Your task to perform on an android device: Check out the best rated books on Goodreads. Image 0: 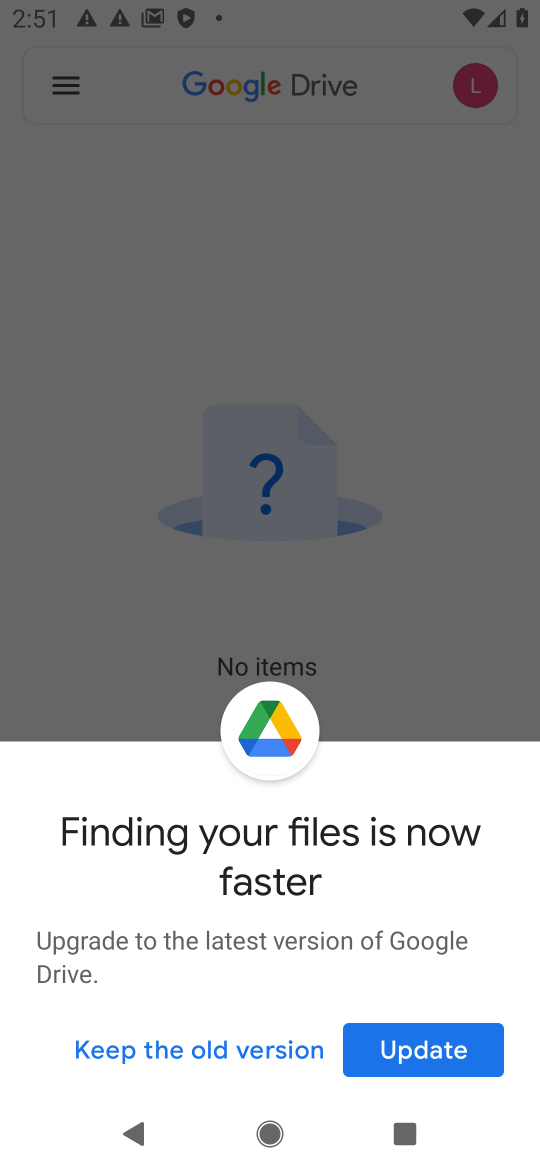
Step 0: press home button
Your task to perform on an android device: Check out the best rated books on Goodreads. Image 1: 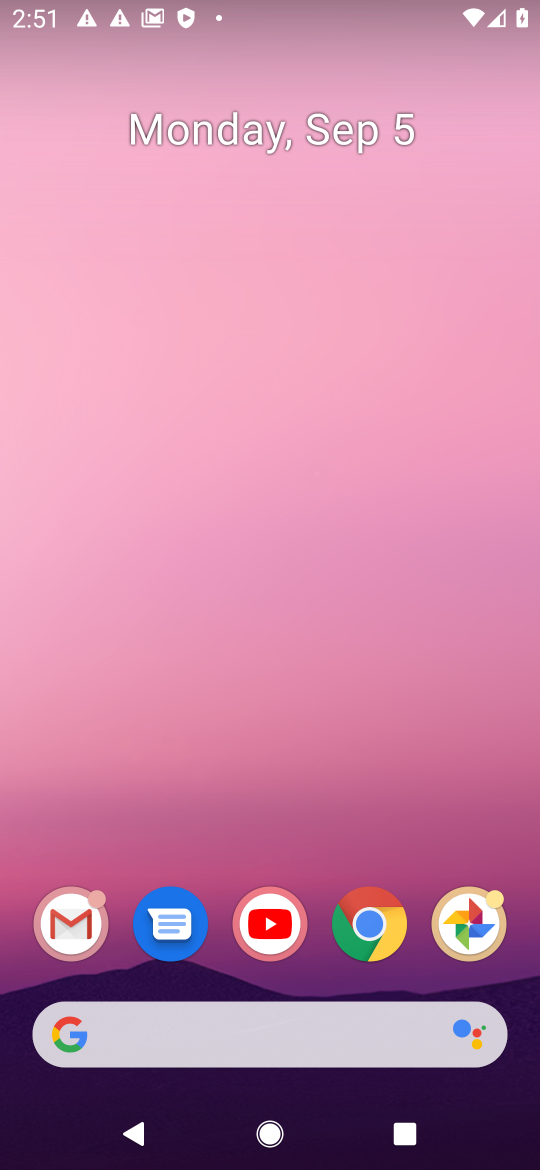
Step 1: click (372, 935)
Your task to perform on an android device: Check out the best rated books on Goodreads. Image 2: 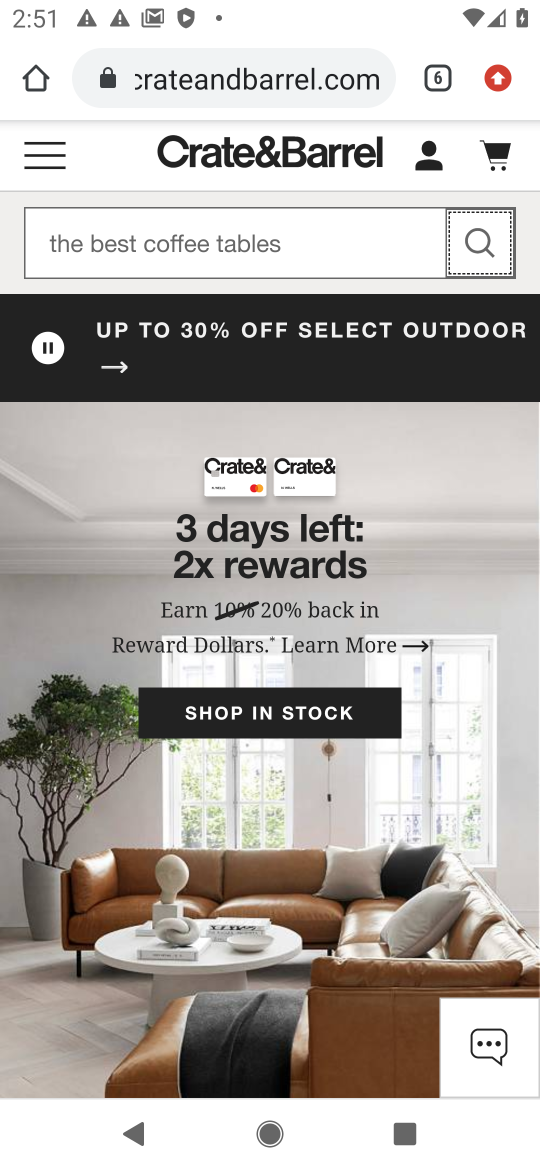
Step 2: click (440, 67)
Your task to perform on an android device: Check out the best rated books on Goodreads. Image 3: 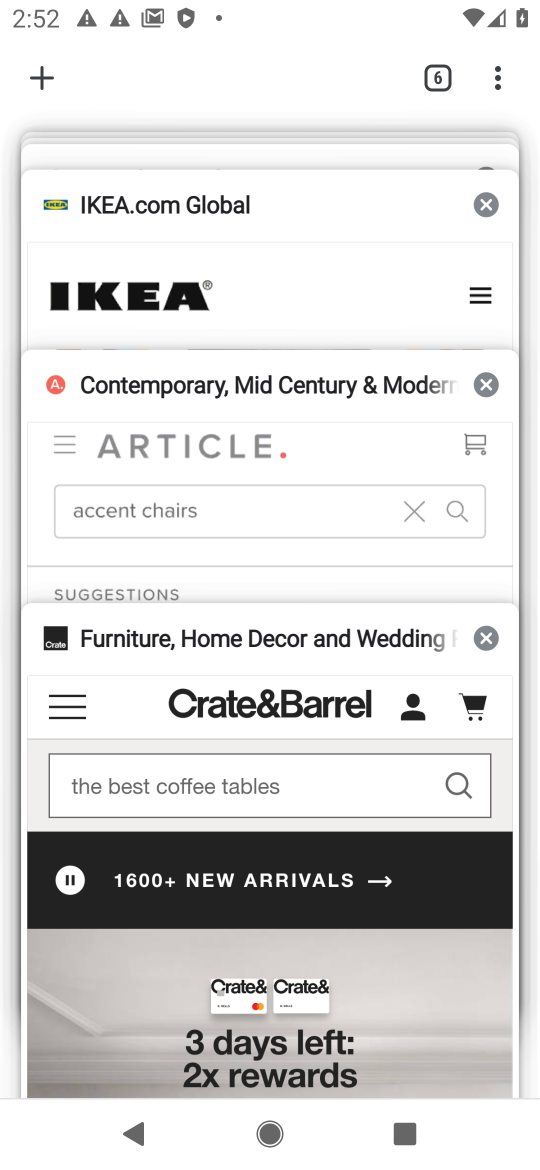
Step 3: click (32, 76)
Your task to perform on an android device: Check out the best rated books on Goodreads. Image 4: 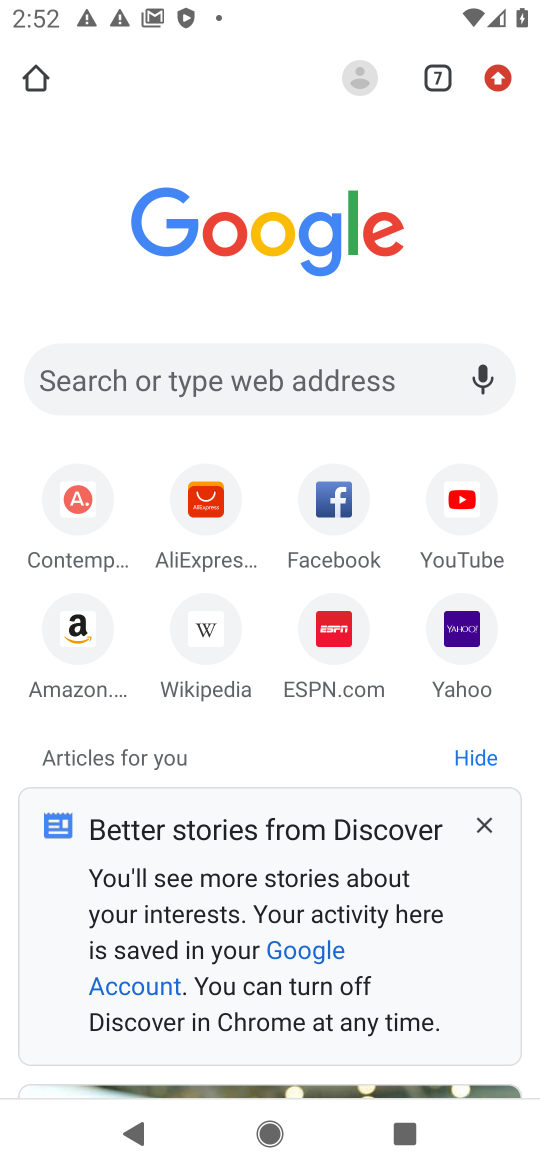
Step 4: click (175, 383)
Your task to perform on an android device: Check out the best rated books on Goodreads. Image 5: 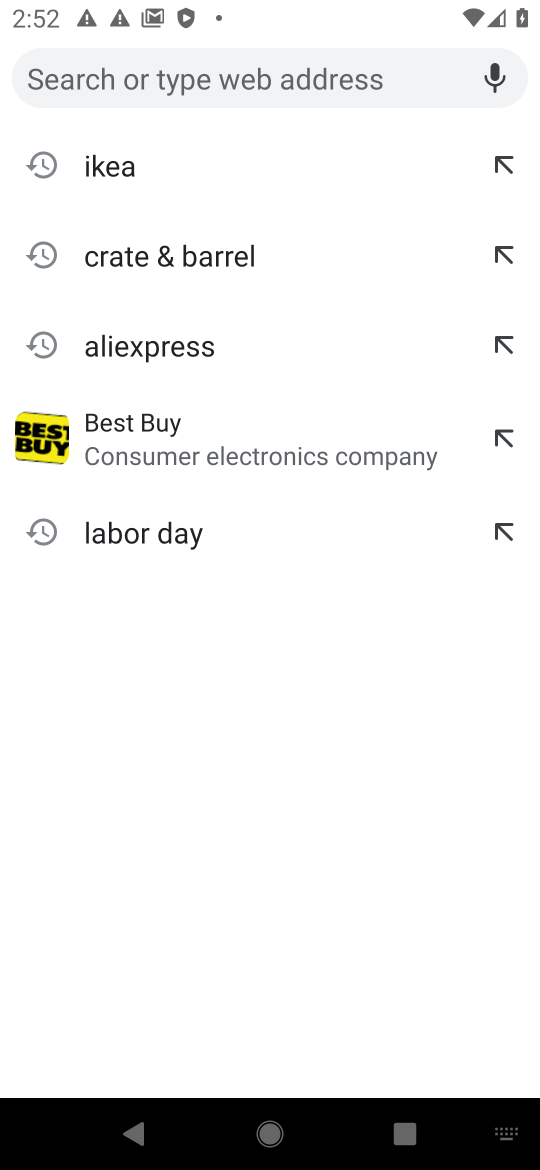
Step 5: type "Goodreads"
Your task to perform on an android device: Check out the best rated books on Goodreads. Image 6: 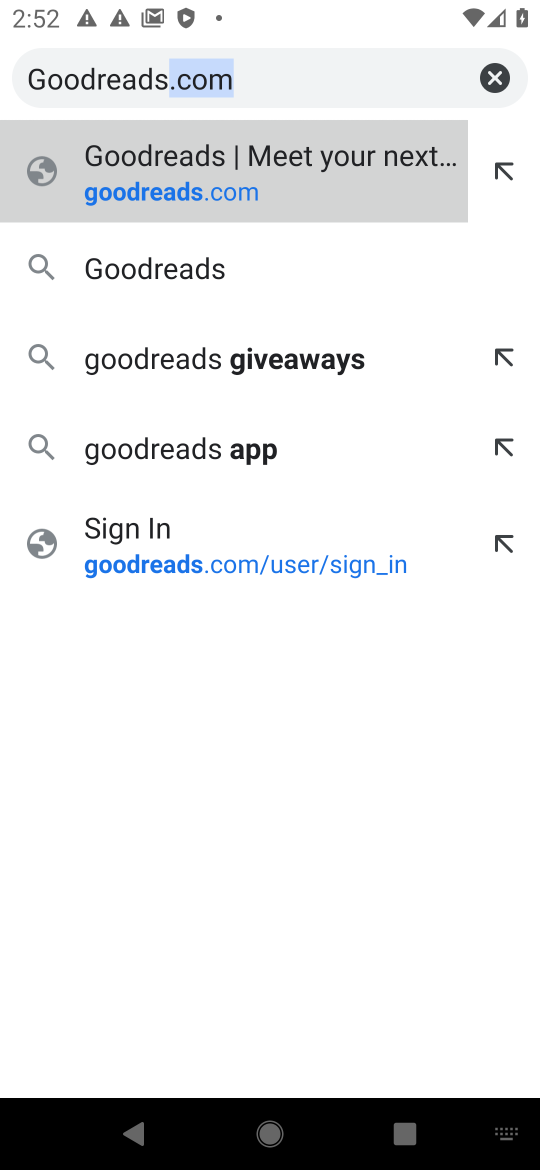
Step 6: type ""
Your task to perform on an android device: Check out the best rated books on Goodreads. Image 7: 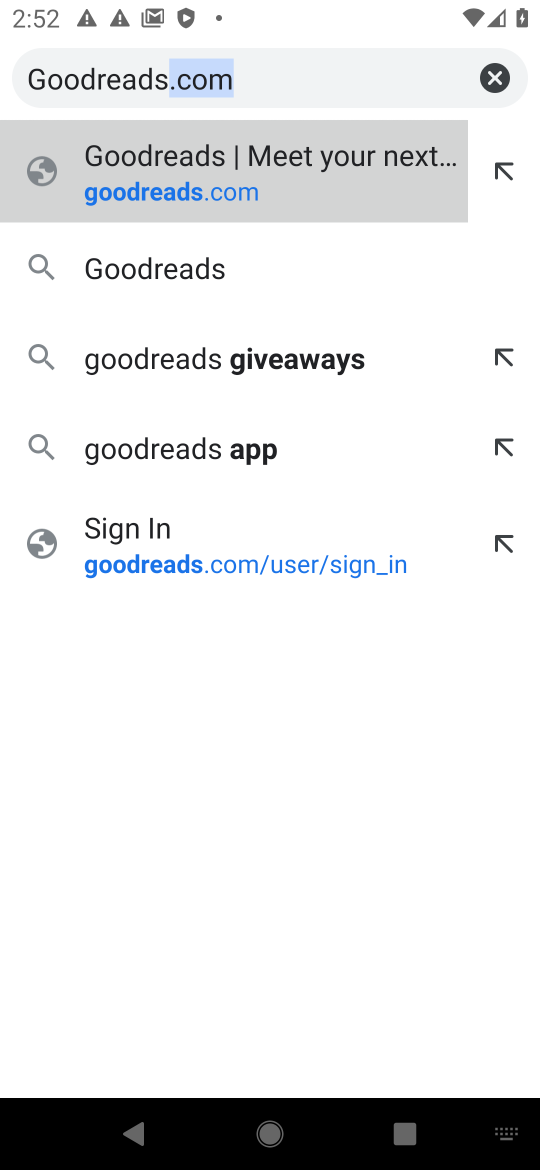
Step 7: click (74, 187)
Your task to perform on an android device: Check out the best rated books on Goodreads. Image 8: 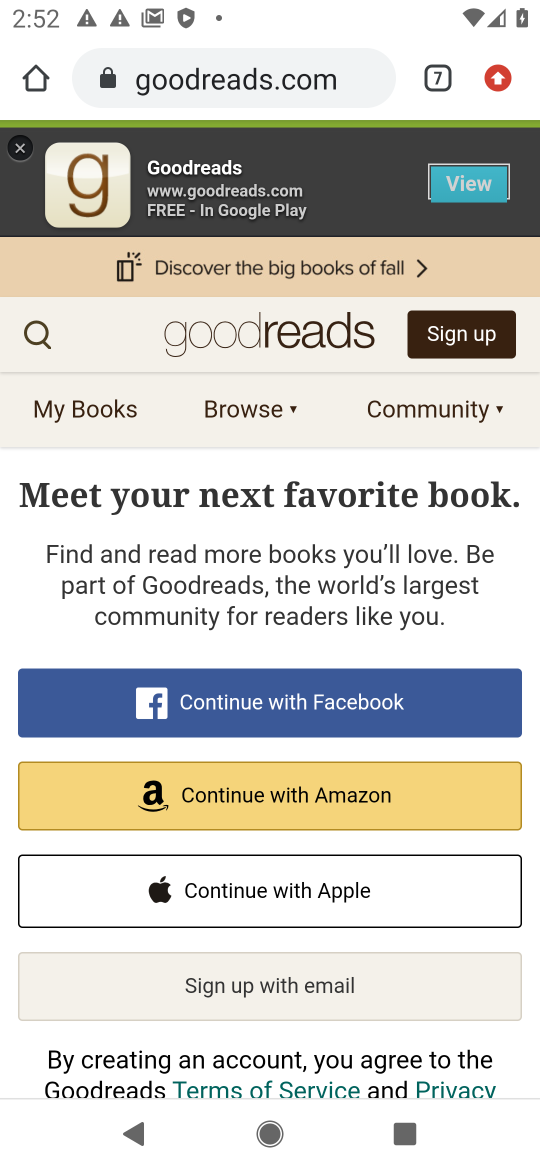
Step 8: click (25, 343)
Your task to perform on an android device: Check out the best rated books on Goodreads. Image 9: 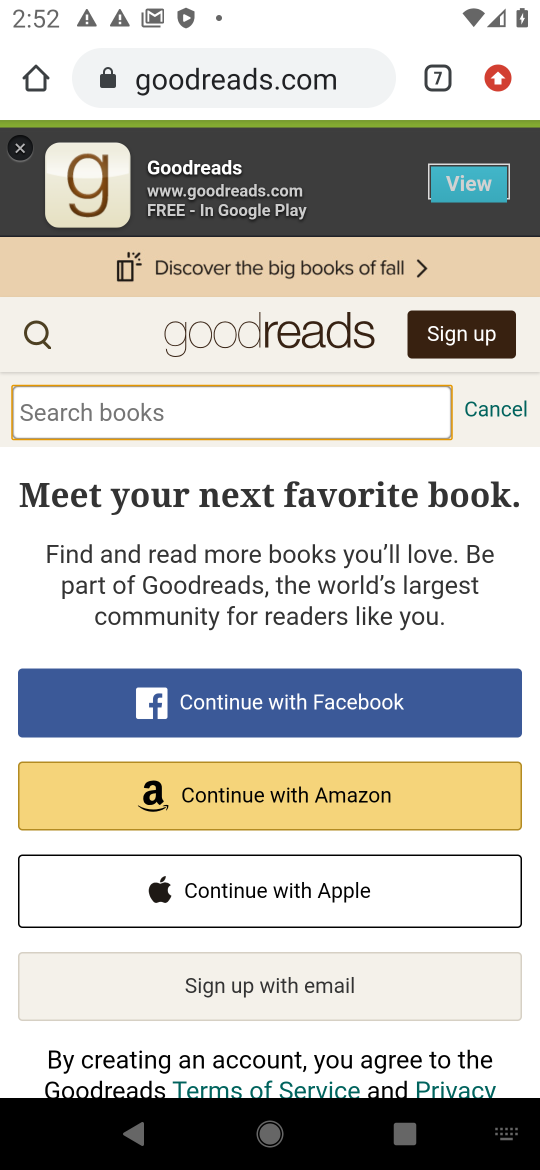
Step 9: click (116, 397)
Your task to perform on an android device: Check out the best rated books on Goodreads. Image 10: 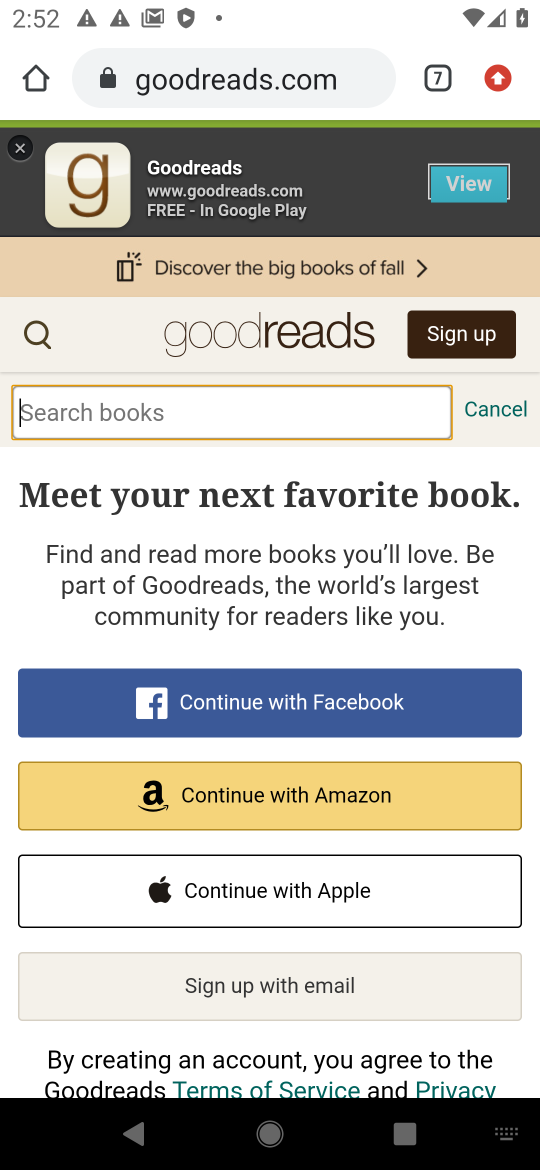
Step 10: type "the best rated books"
Your task to perform on an android device: Check out the best rated books on Goodreads. Image 11: 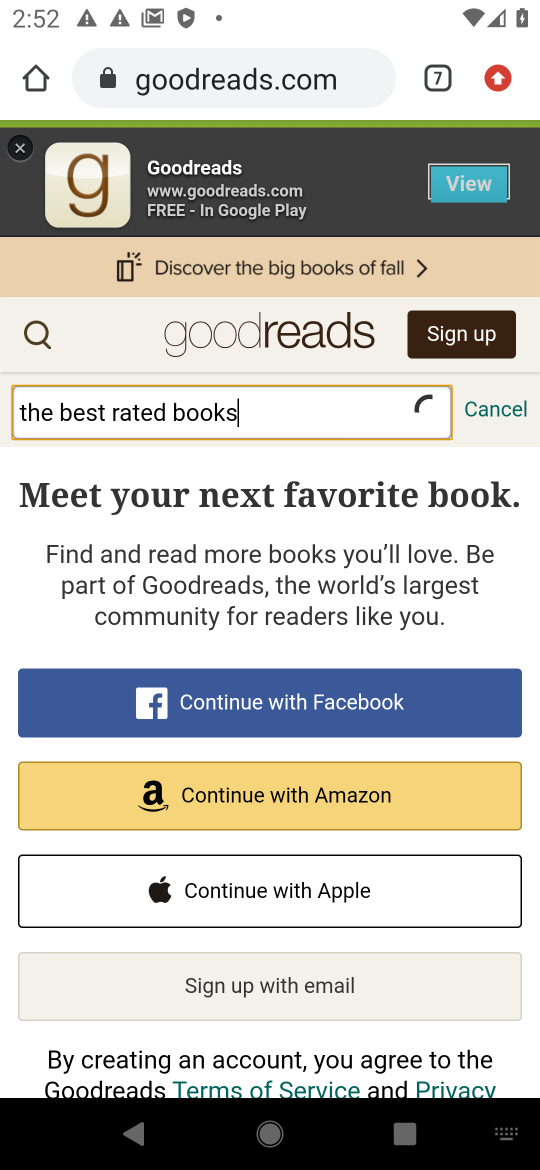
Step 11: type ""
Your task to perform on an android device: Check out the best rated books on Goodreads. Image 12: 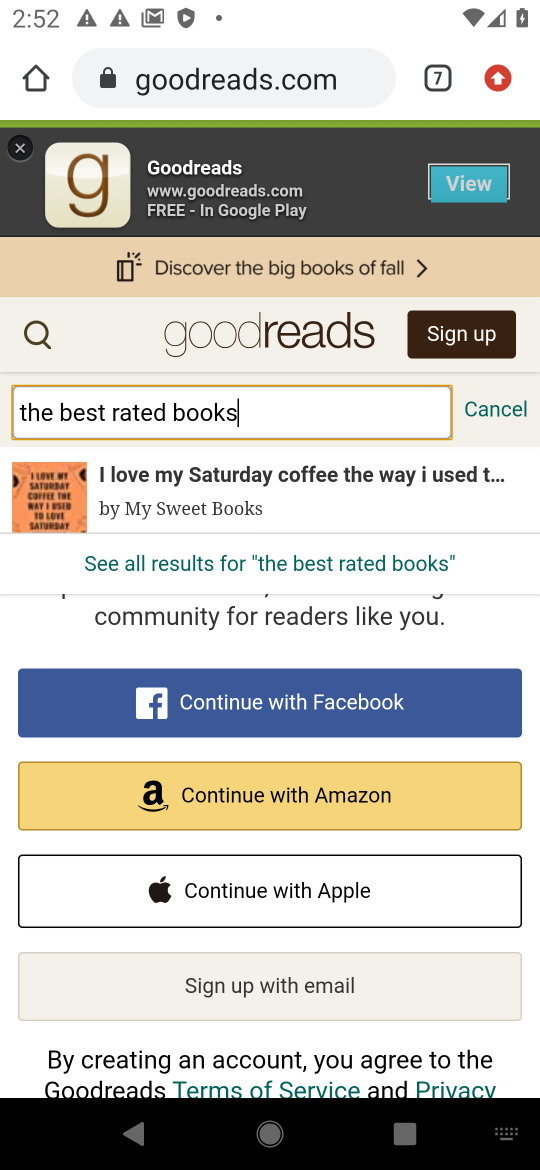
Step 12: click (200, 587)
Your task to perform on an android device: Check out the best rated books on Goodreads. Image 13: 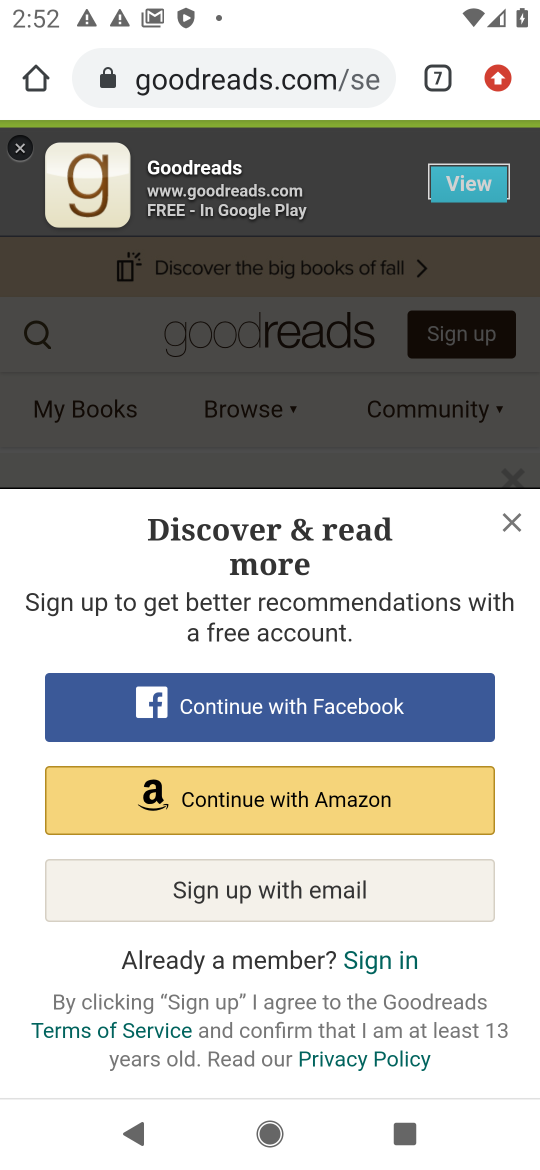
Step 13: task complete